Your task to perform on an android device: See recent photos Image 0: 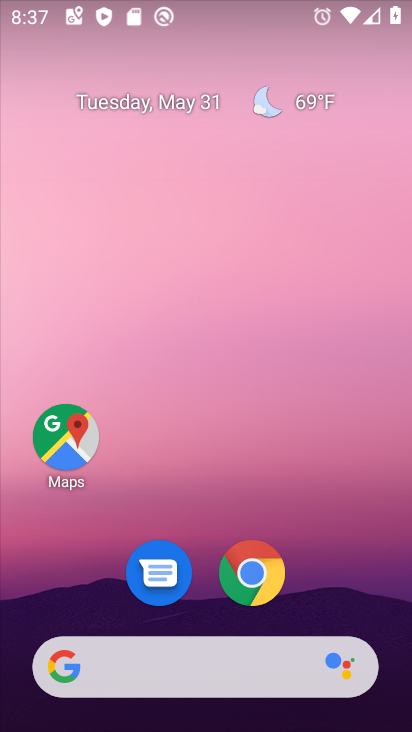
Step 0: drag from (215, 515) to (243, 79)
Your task to perform on an android device: See recent photos Image 1: 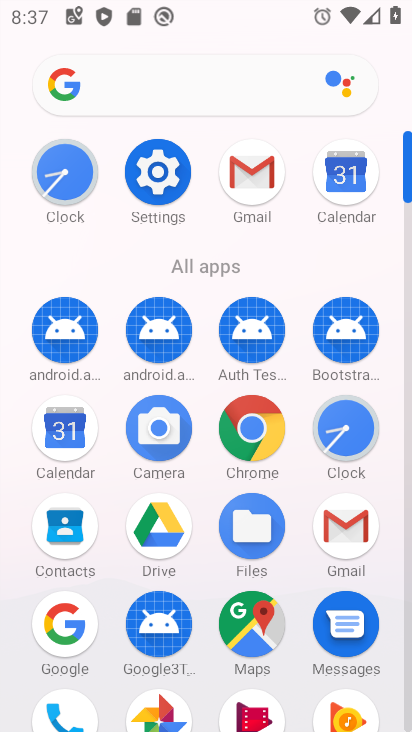
Step 1: click (173, 711)
Your task to perform on an android device: See recent photos Image 2: 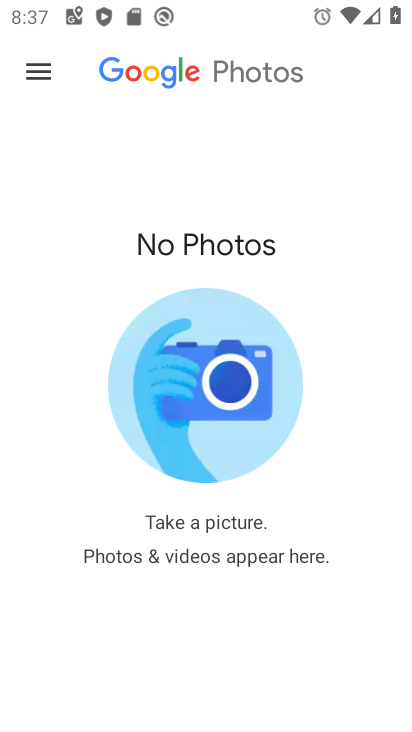
Step 2: task complete